Your task to perform on an android device: toggle data saver in the chrome app Image 0: 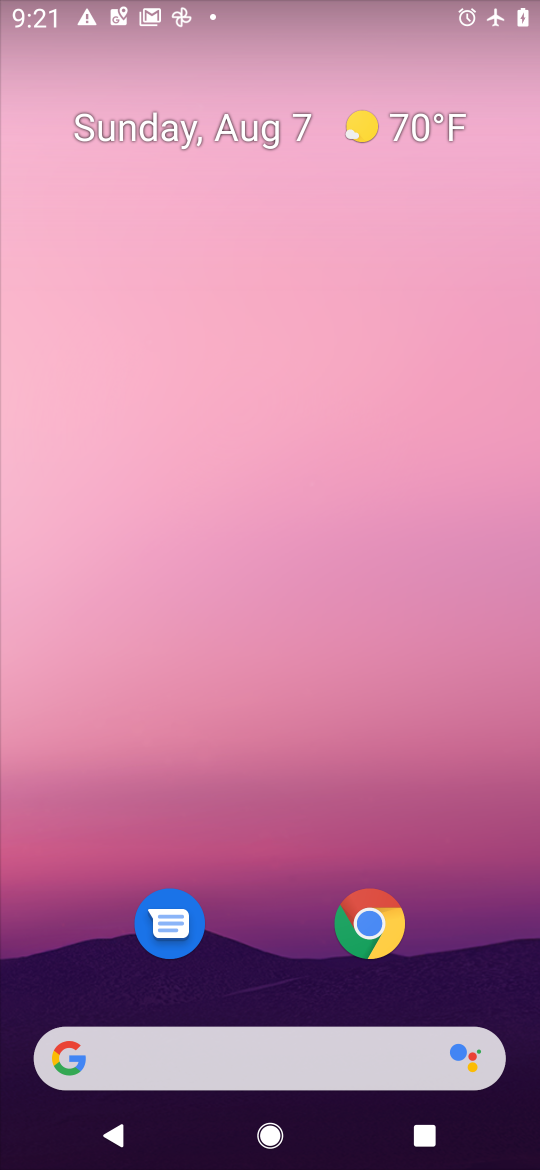
Step 0: drag from (468, 951) to (305, 50)
Your task to perform on an android device: toggle data saver in the chrome app Image 1: 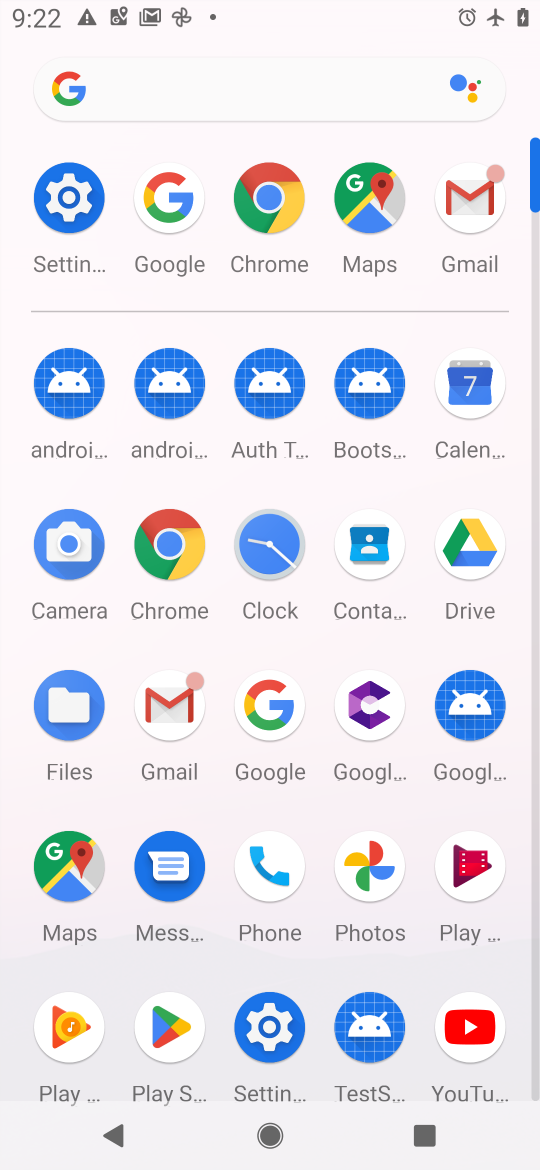
Step 1: click (194, 521)
Your task to perform on an android device: toggle data saver in the chrome app Image 2: 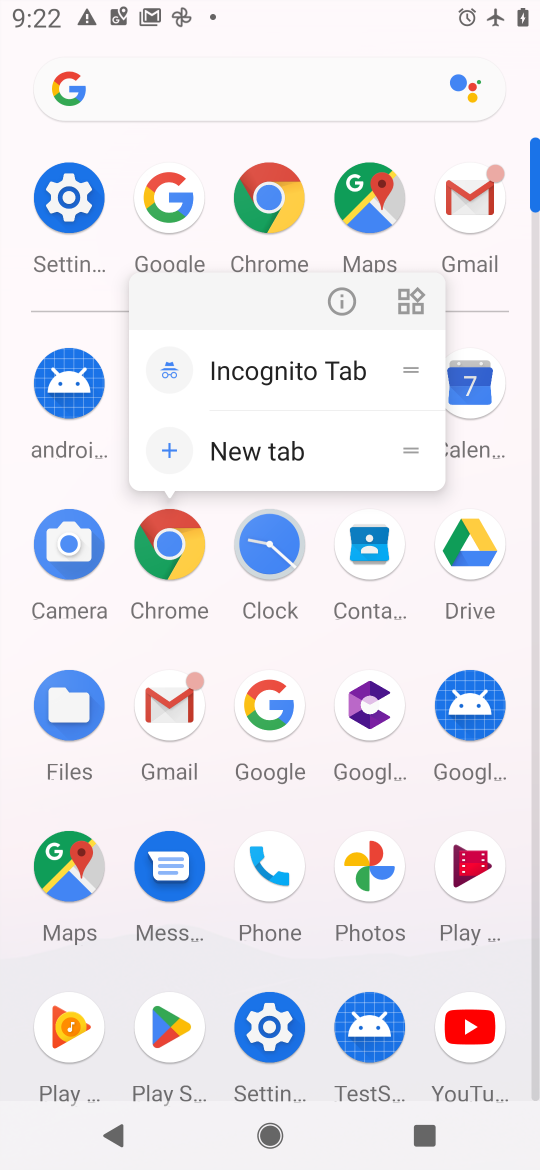
Step 2: click (194, 521)
Your task to perform on an android device: toggle data saver in the chrome app Image 3: 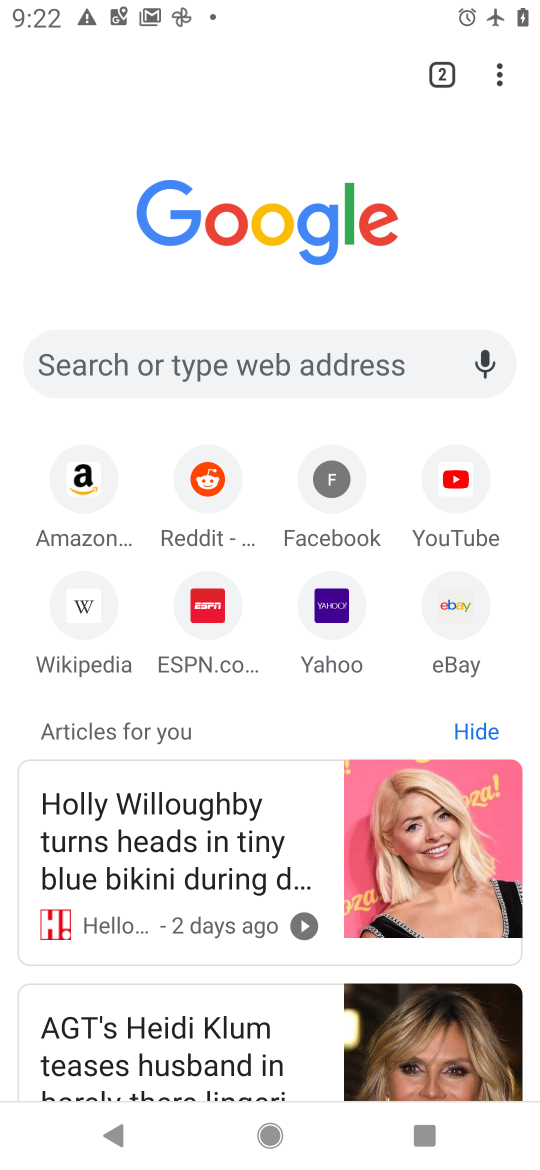
Step 3: click (498, 75)
Your task to perform on an android device: toggle data saver in the chrome app Image 4: 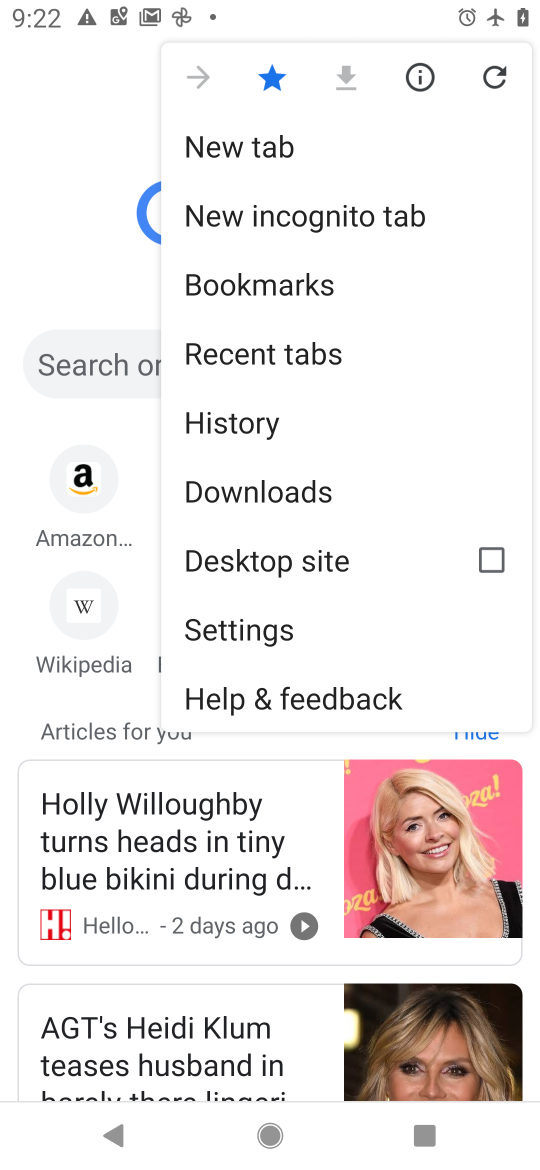
Step 4: click (249, 651)
Your task to perform on an android device: toggle data saver in the chrome app Image 5: 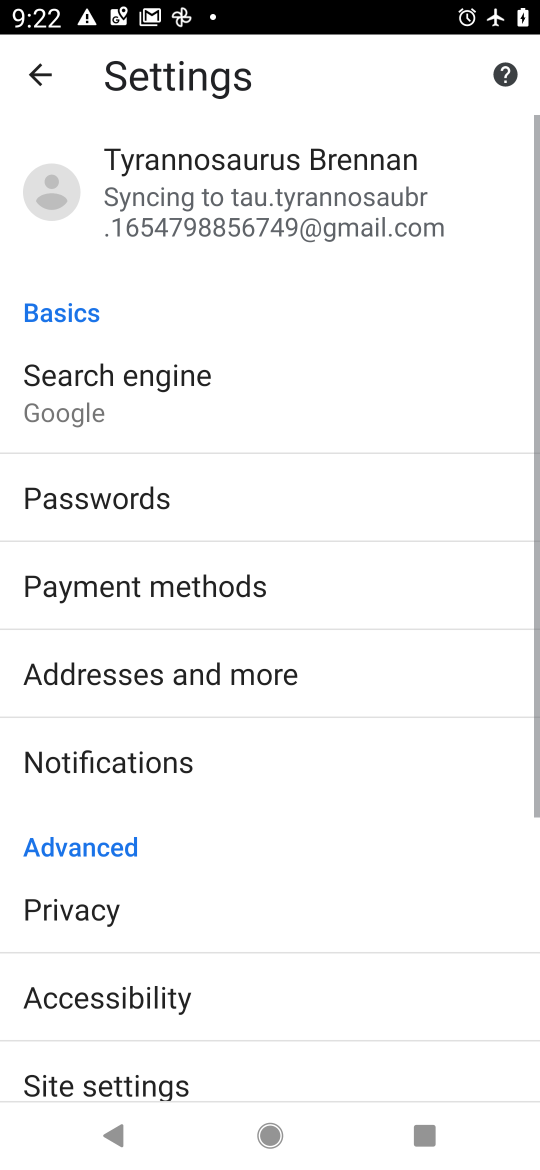
Step 5: drag from (163, 1055) to (156, 44)
Your task to perform on an android device: toggle data saver in the chrome app Image 6: 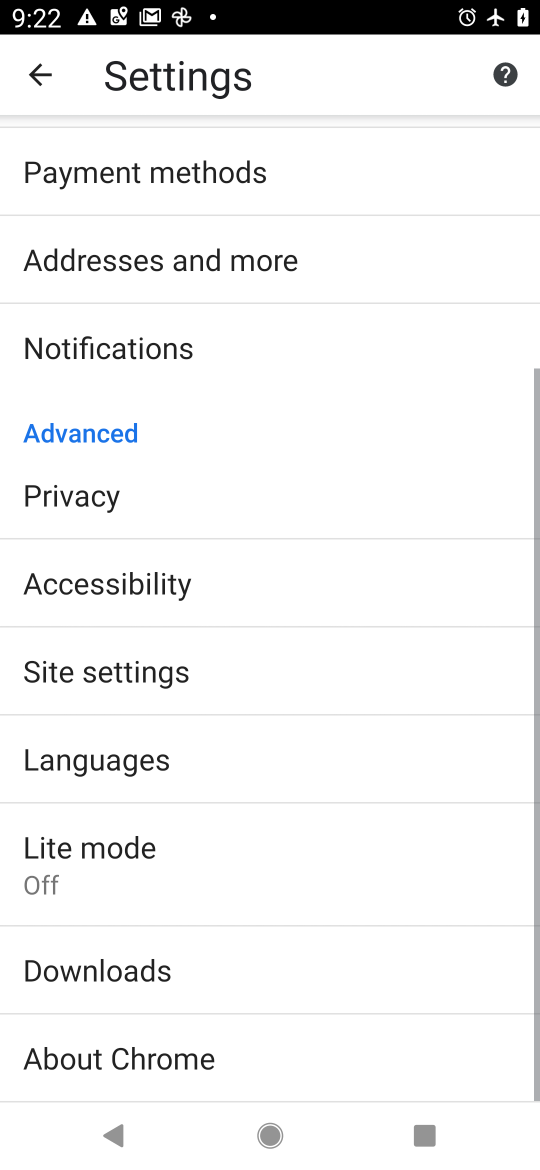
Step 6: click (104, 858)
Your task to perform on an android device: toggle data saver in the chrome app Image 7: 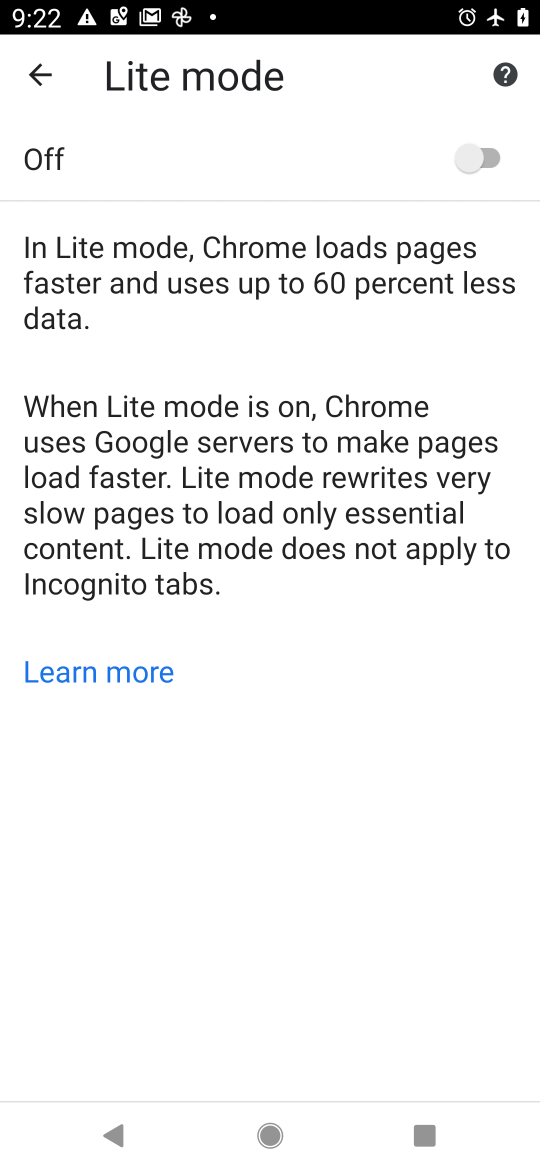
Step 7: click (446, 163)
Your task to perform on an android device: toggle data saver in the chrome app Image 8: 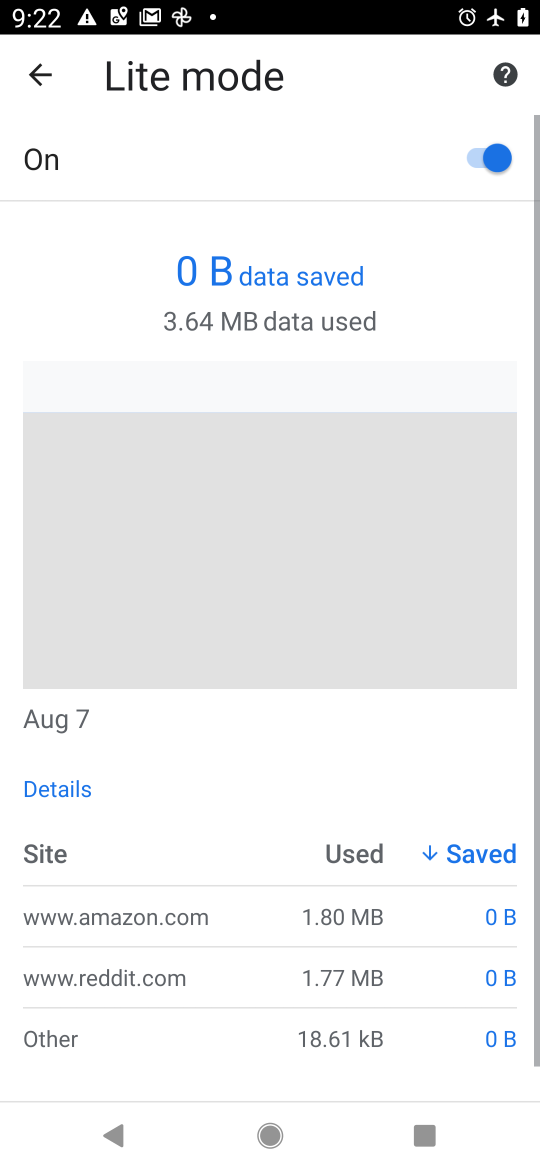
Step 8: task complete